Your task to perform on an android device: turn on the 24-hour format for clock Image 0: 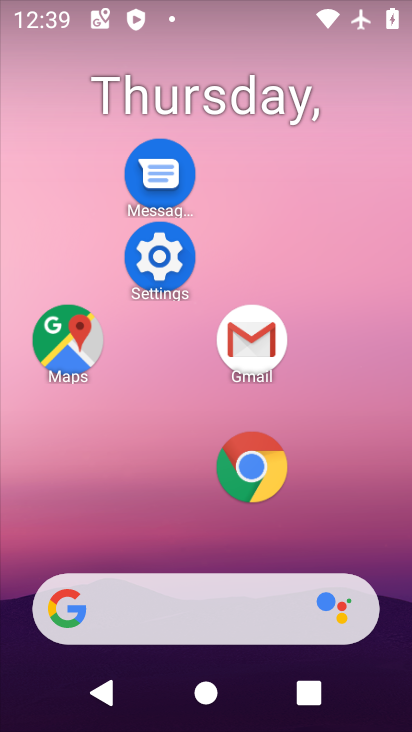
Step 0: drag from (221, 537) to (238, 246)
Your task to perform on an android device: turn on the 24-hour format for clock Image 1: 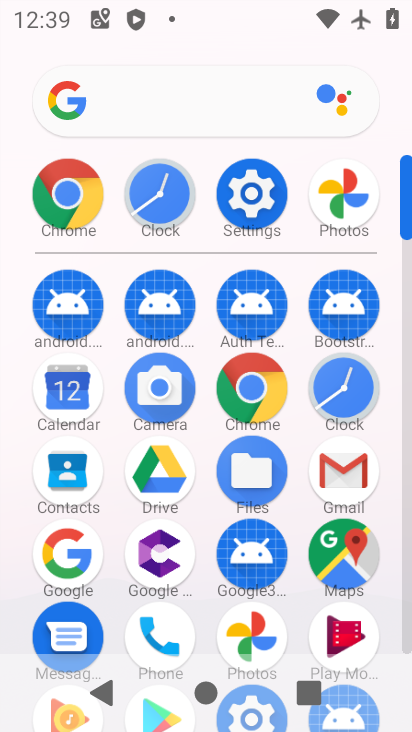
Step 1: drag from (202, 409) to (255, 146)
Your task to perform on an android device: turn on the 24-hour format for clock Image 2: 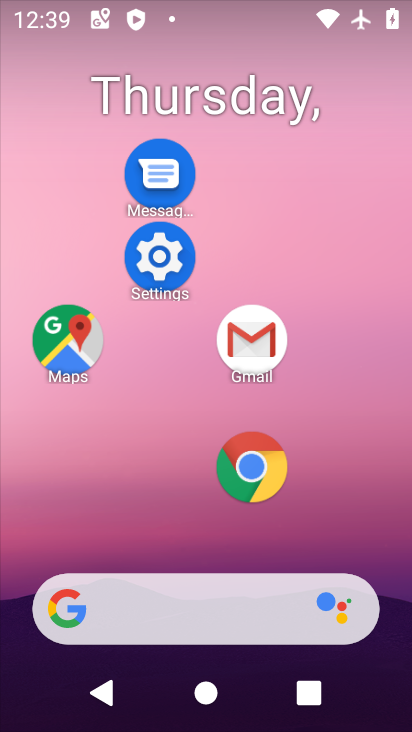
Step 2: drag from (172, 569) to (191, 152)
Your task to perform on an android device: turn on the 24-hour format for clock Image 3: 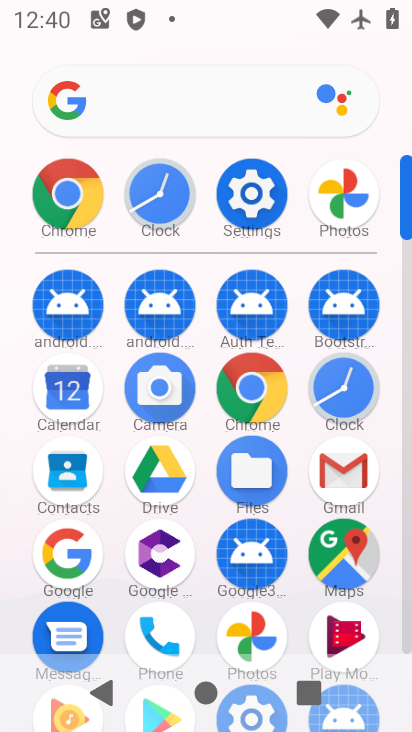
Step 3: click (354, 378)
Your task to perform on an android device: turn on the 24-hour format for clock Image 4: 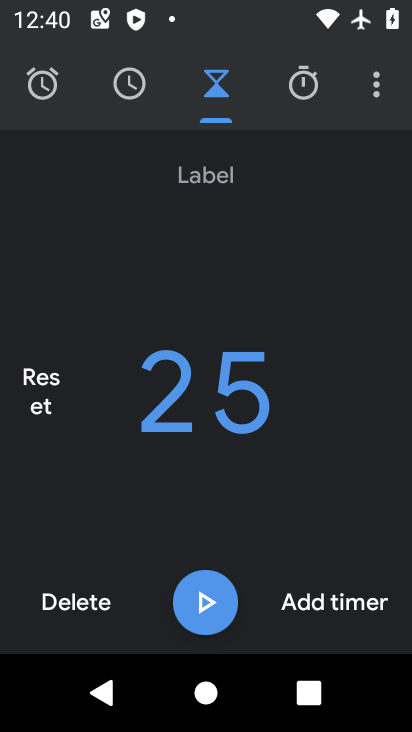
Step 4: click (387, 79)
Your task to perform on an android device: turn on the 24-hour format for clock Image 5: 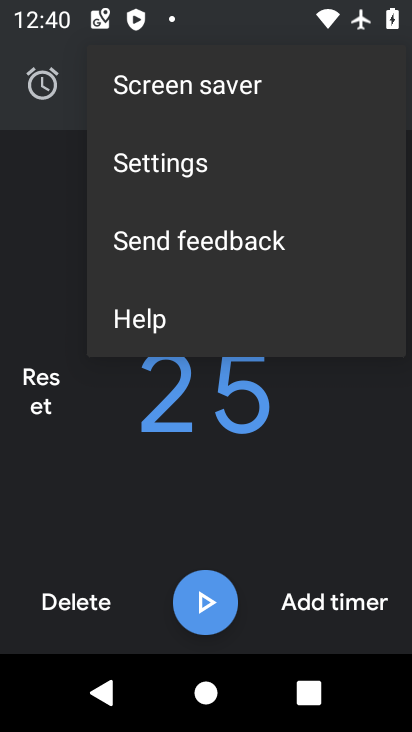
Step 5: click (221, 168)
Your task to perform on an android device: turn on the 24-hour format for clock Image 6: 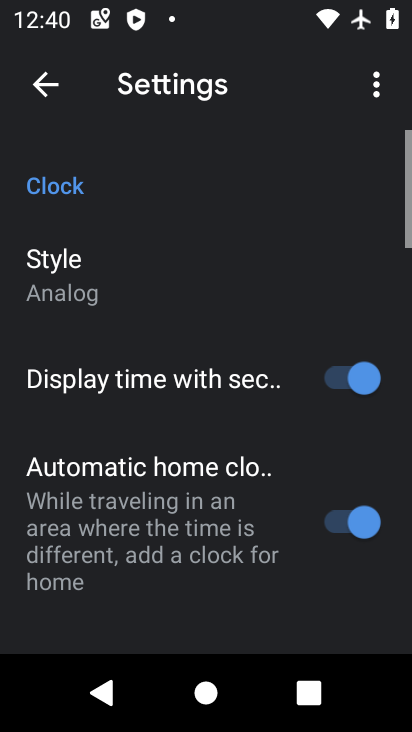
Step 6: drag from (245, 545) to (262, 190)
Your task to perform on an android device: turn on the 24-hour format for clock Image 7: 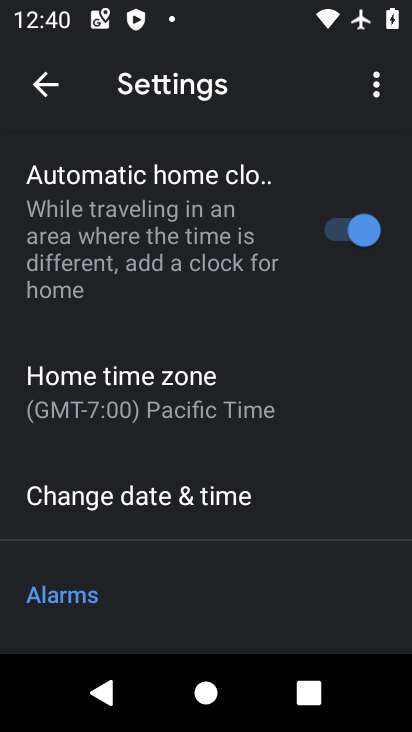
Step 7: drag from (218, 535) to (248, 210)
Your task to perform on an android device: turn on the 24-hour format for clock Image 8: 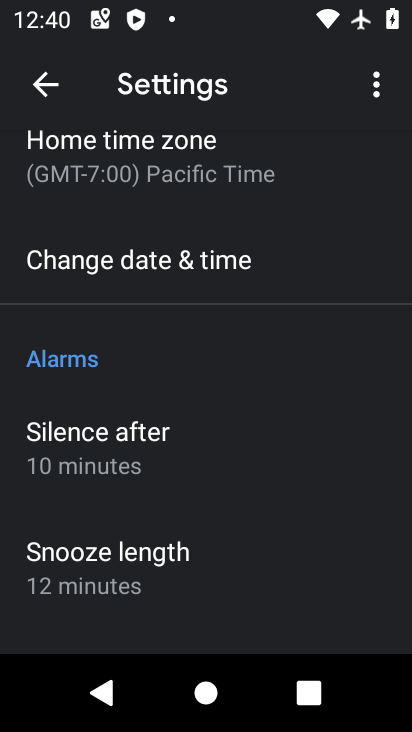
Step 8: drag from (227, 546) to (282, 234)
Your task to perform on an android device: turn on the 24-hour format for clock Image 9: 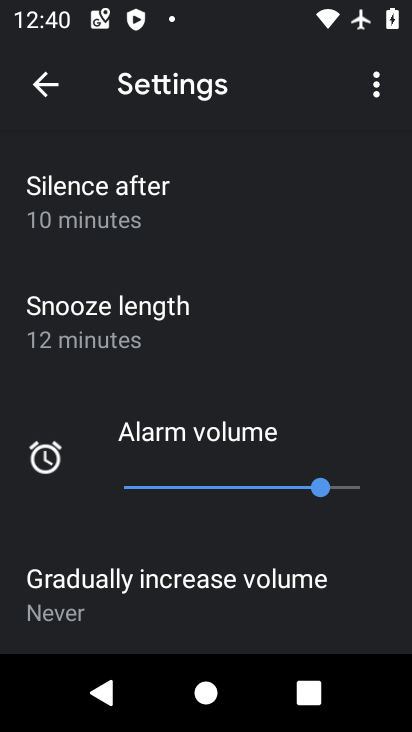
Step 9: drag from (225, 281) to (227, 643)
Your task to perform on an android device: turn on the 24-hour format for clock Image 10: 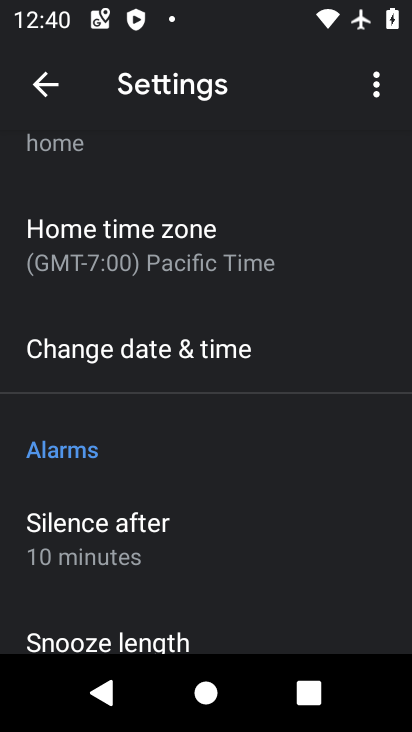
Step 10: click (154, 357)
Your task to perform on an android device: turn on the 24-hour format for clock Image 11: 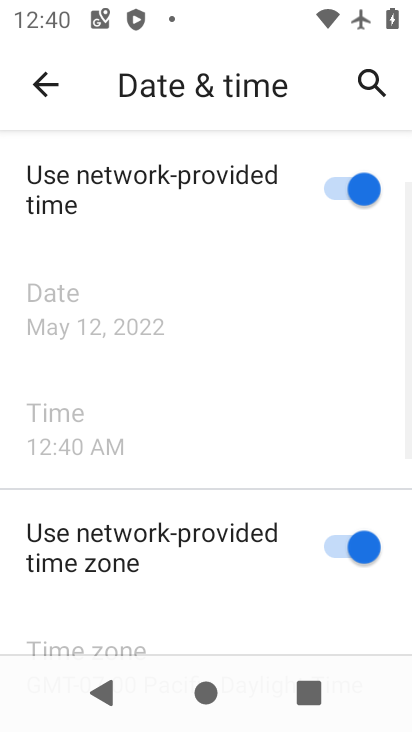
Step 11: drag from (232, 547) to (305, 190)
Your task to perform on an android device: turn on the 24-hour format for clock Image 12: 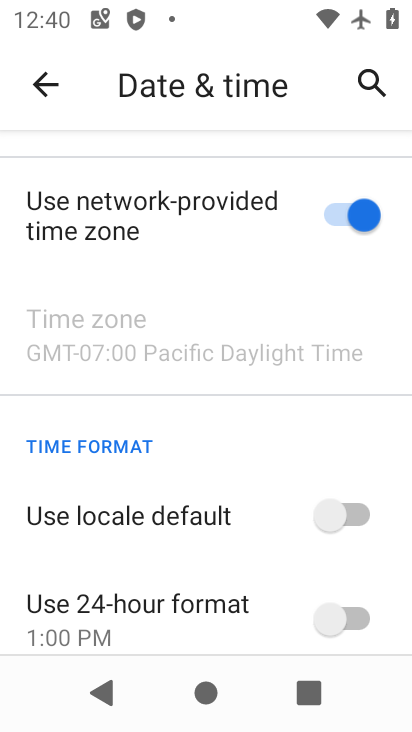
Step 12: click (321, 593)
Your task to perform on an android device: turn on the 24-hour format for clock Image 13: 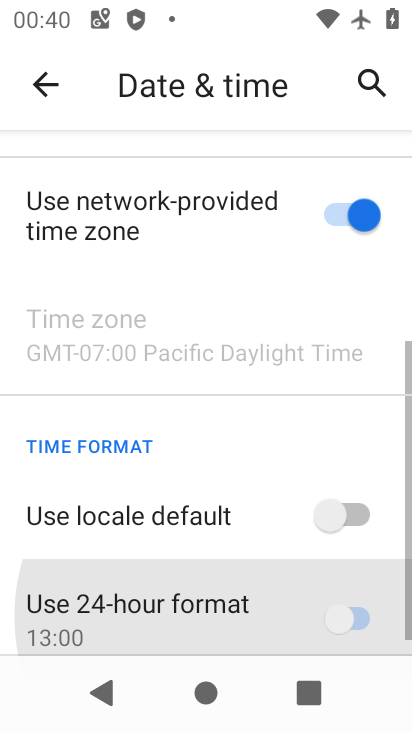
Step 13: click (330, 610)
Your task to perform on an android device: turn on the 24-hour format for clock Image 14: 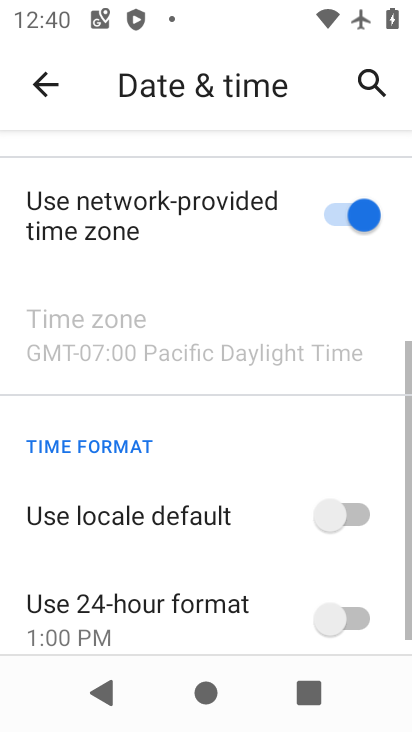
Step 14: drag from (147, 535) to (213, 203)
Your task to perform on an android device: turn on the 24-hour format for clock Image 15: 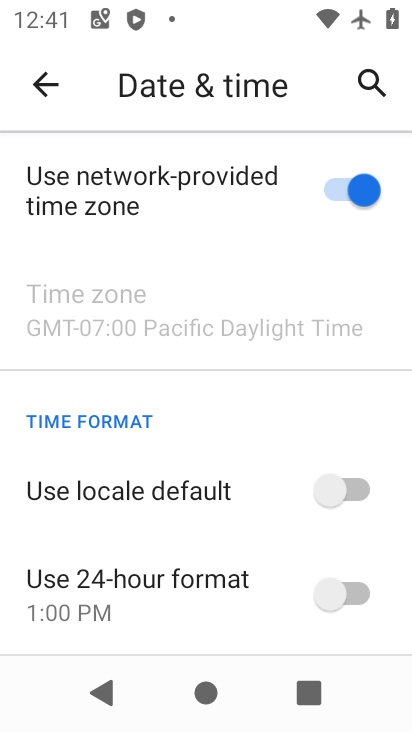
Step 15: click (332, 593)
Your task to perform on an android device: turn on the 24-hour format for clock Image 16: 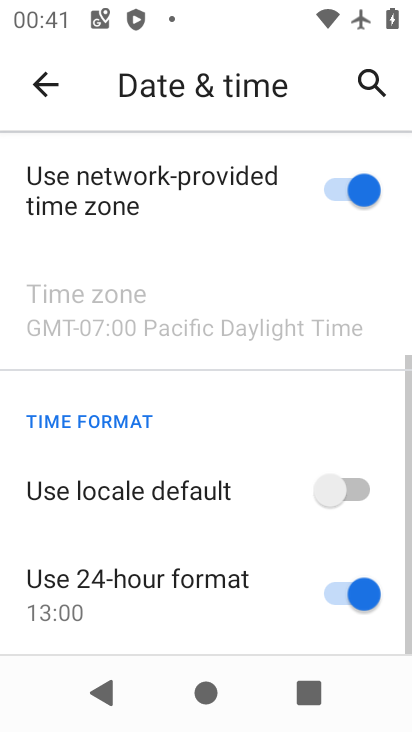
Step 16: task complete